Your task to perform on an android device: install app "Contacts" Image 0: 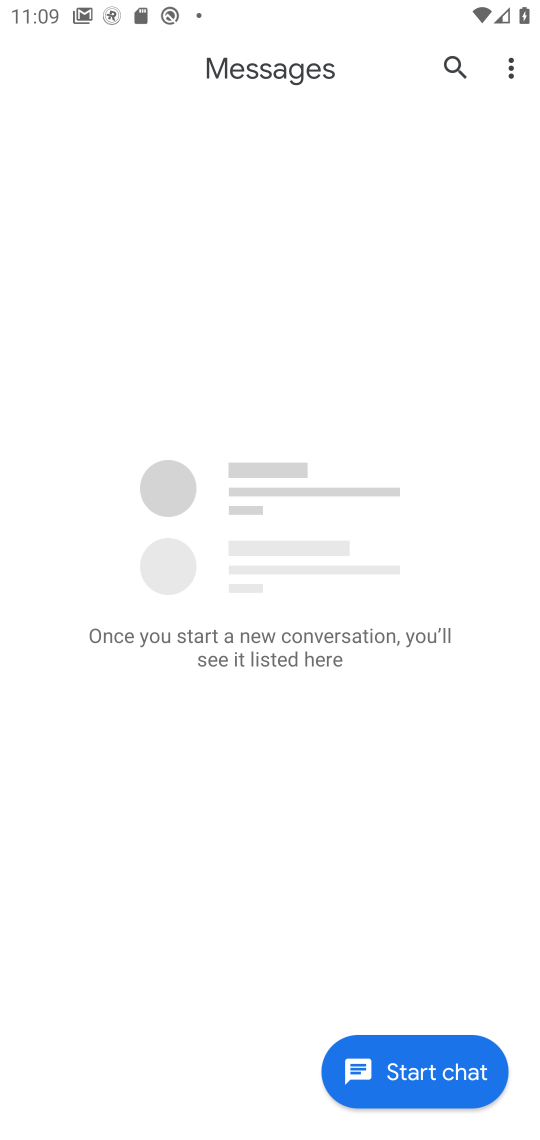
Step 0: press home button
Your task to perform on an android device: install app "Contacts" Image 1: 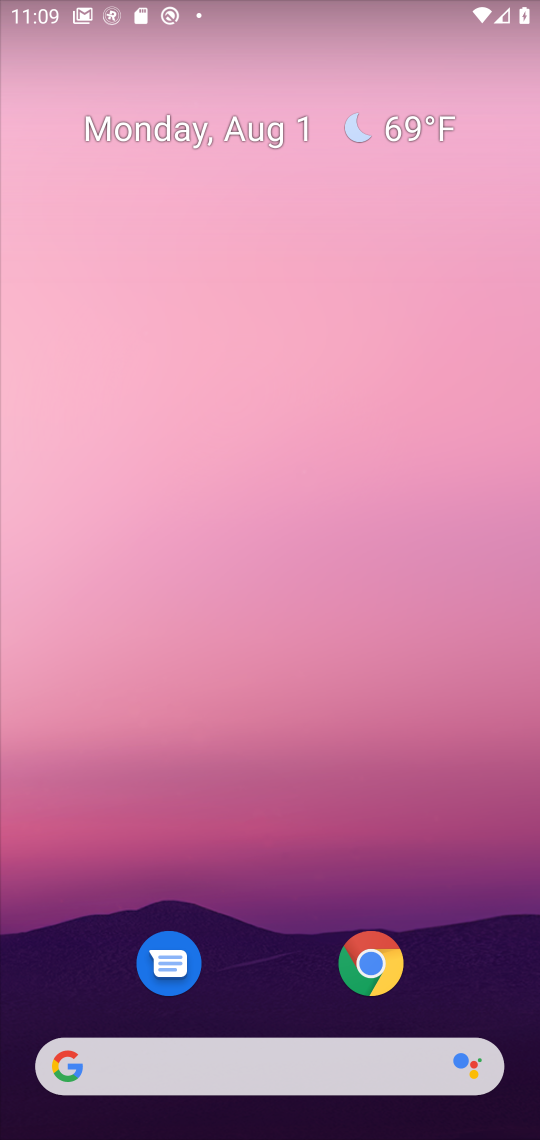
Step 1: drag from (231, 970) to (506, 383)
Your task to perform on an android device: install app "Contacts" Image 2: 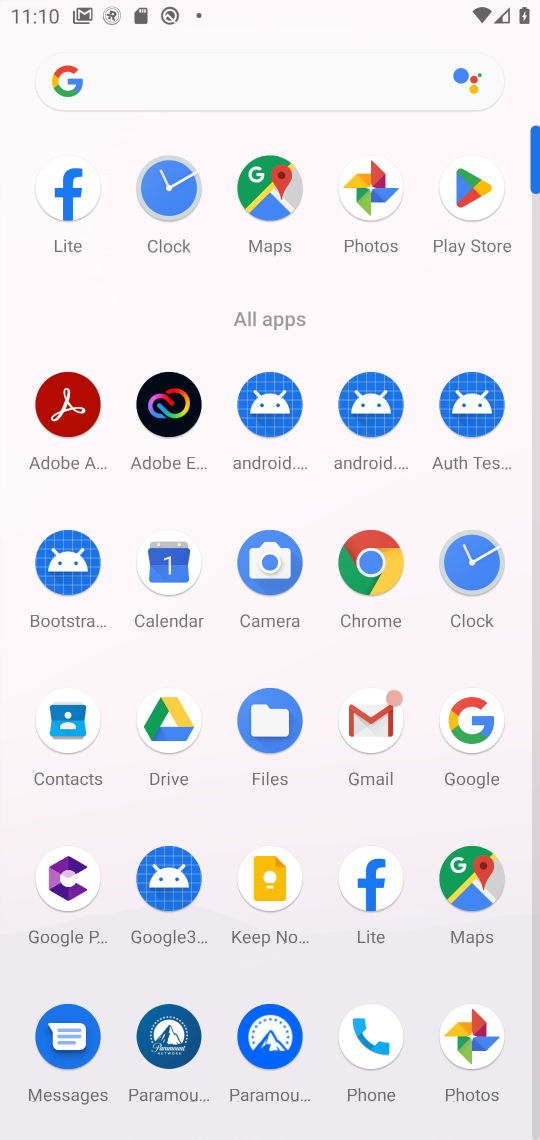
Step 2: click (491, 204)
Your task to perform on an android device: install app "Contacts" Image 3: 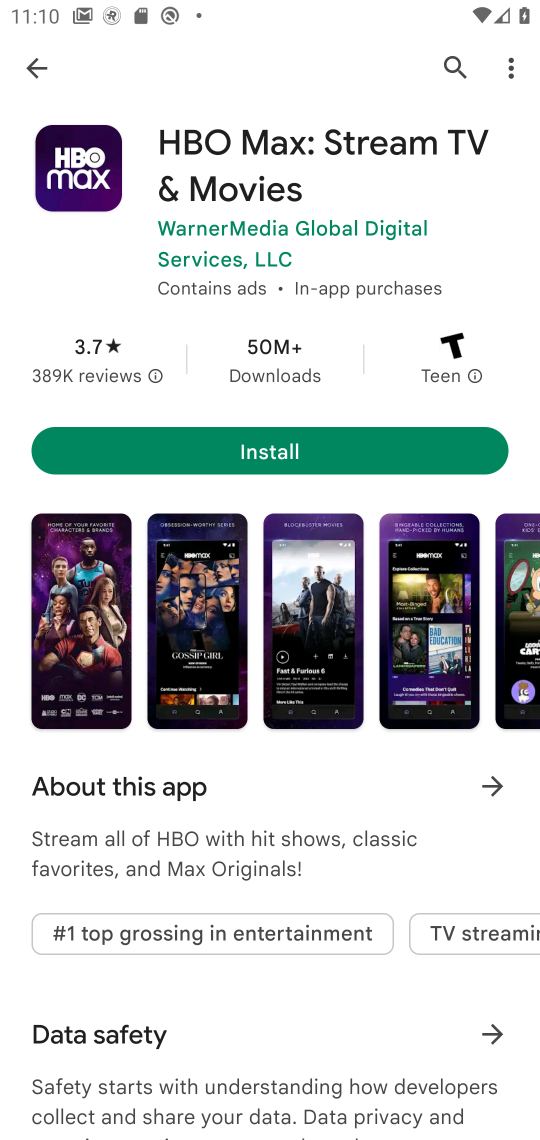
Step 3: click (26, 54)
Your task to perform on an android device: install app "Contacts" Image 4: 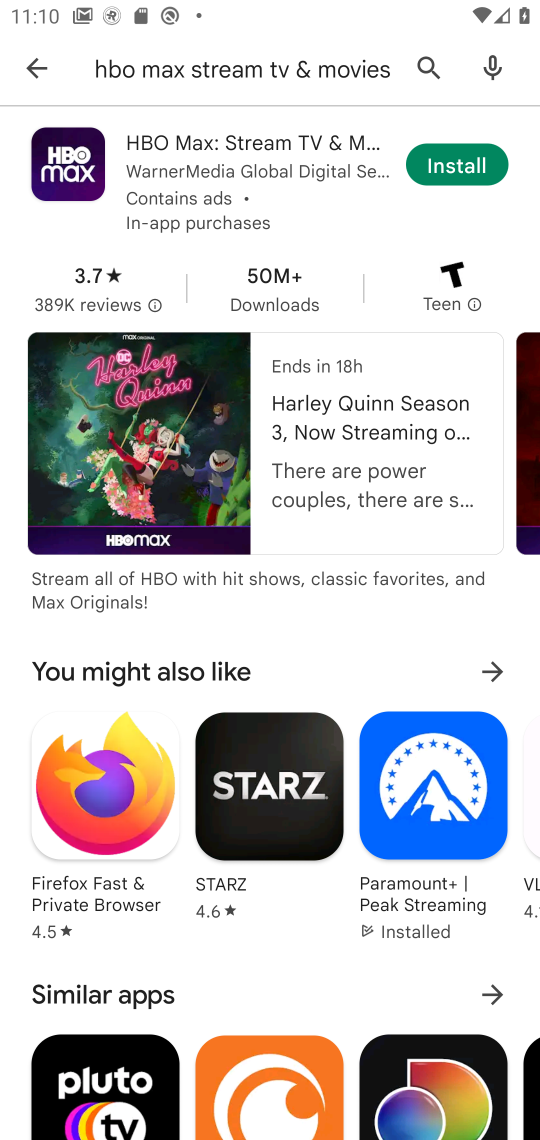
Step 4: click (169, 64)
Your task to perform on an android device: install app "Contacts" Image 5: 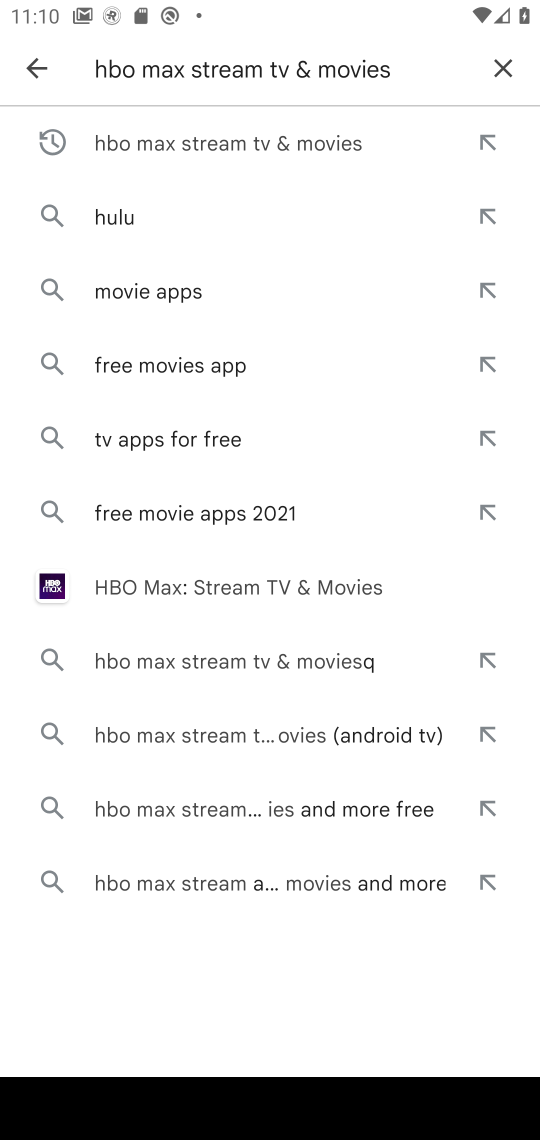
Step 5: click (501, 59)
Your task to perform on an android device: install app "Contacts" Image 6: 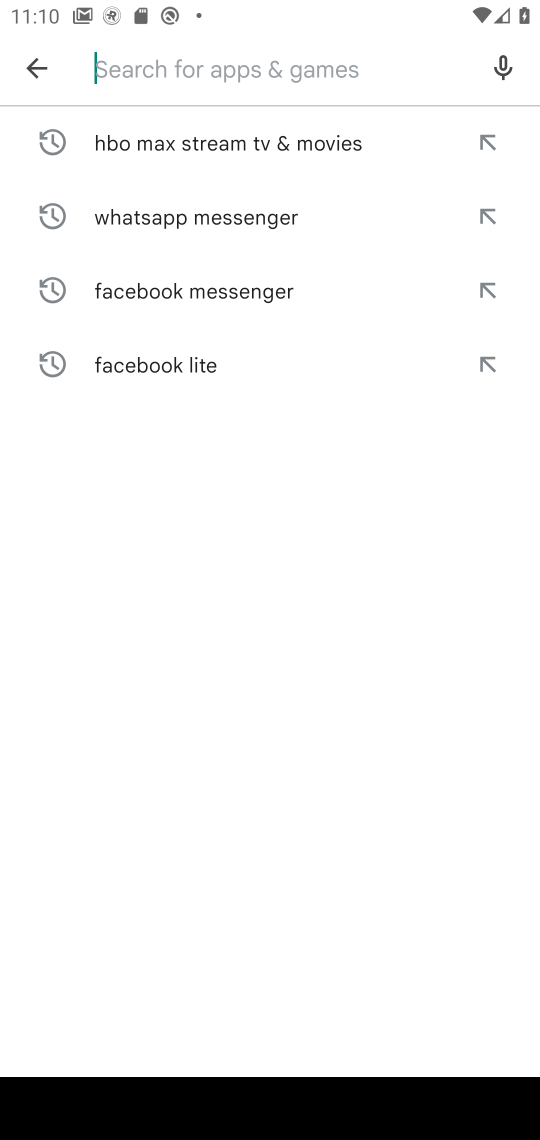
Step 6: type "Contact"
Your task to perform on an android device: install app "Contacts" Image 7: 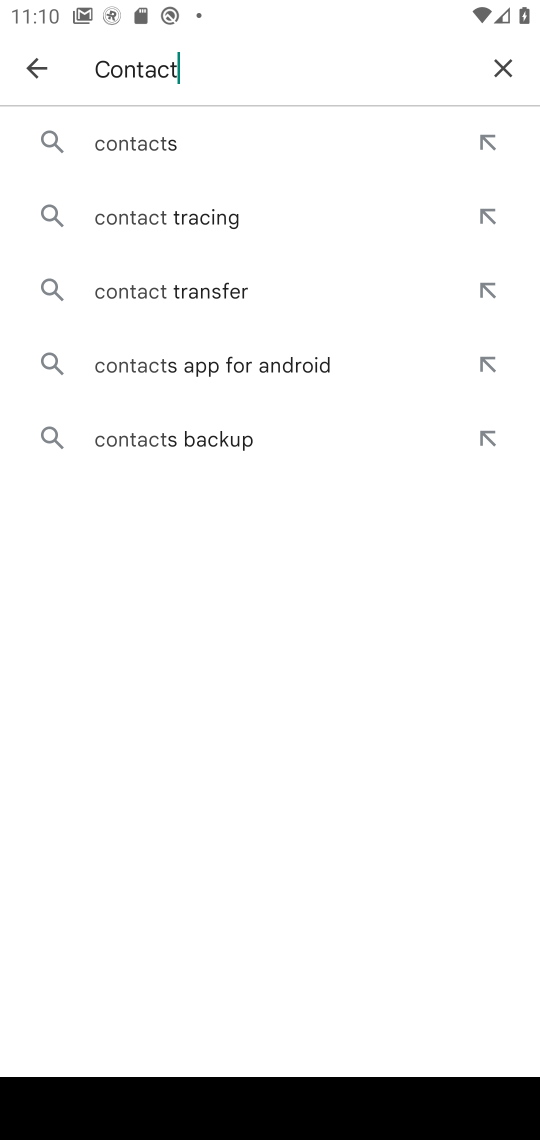
Step 7: click (178, 135)
Your task to perform on an android device: install app "Contacts" Image 8: 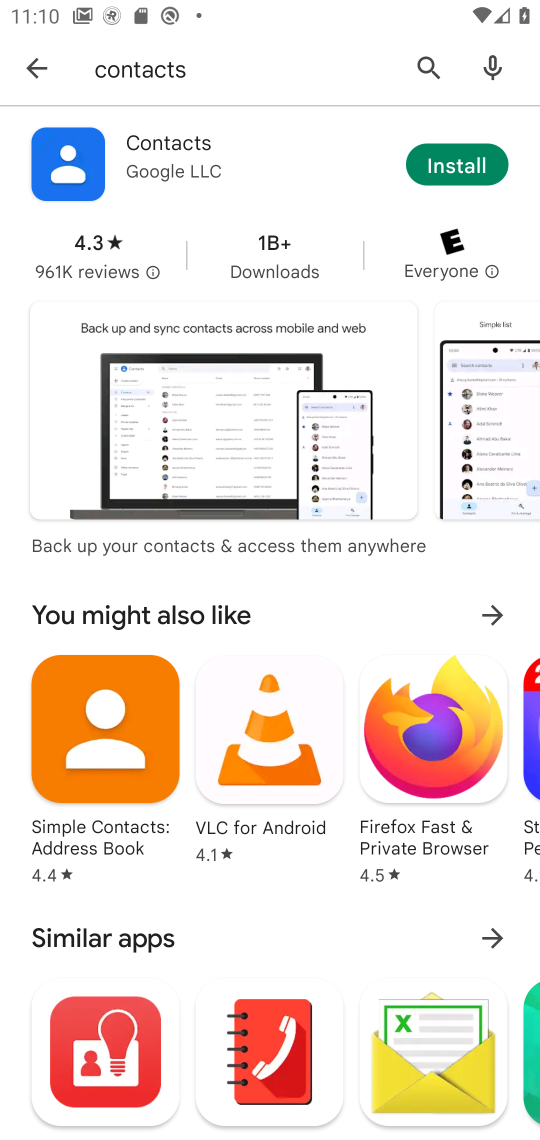
Step 8: click (453, 161)
Your task to perform on an android device: install app "Contacts" Image 9: 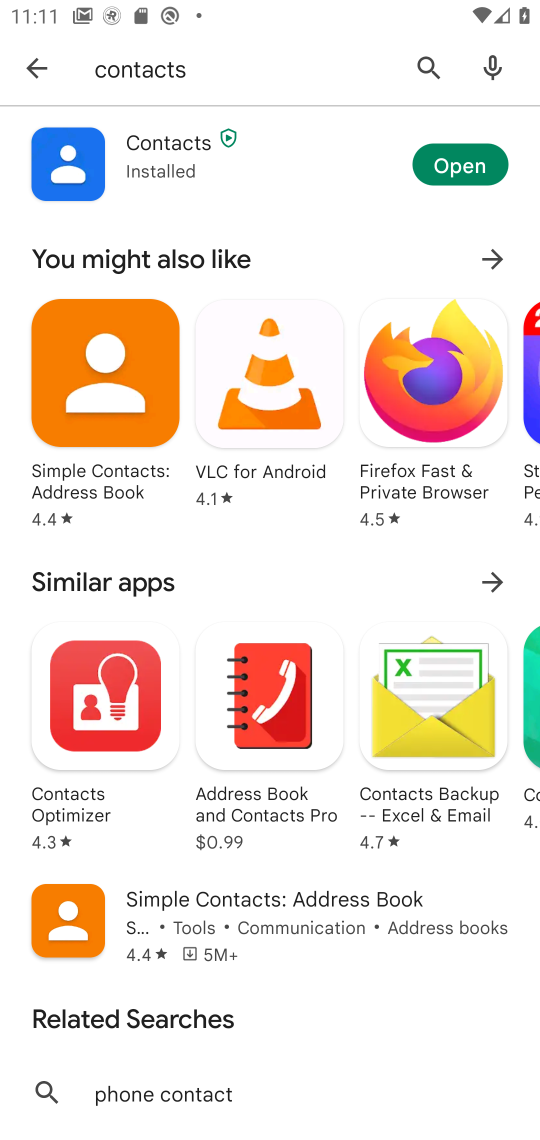
Step 9: task complete